Your task to perform on an android device: Open the Play Movies app and select the watchlist tab. Image 0: 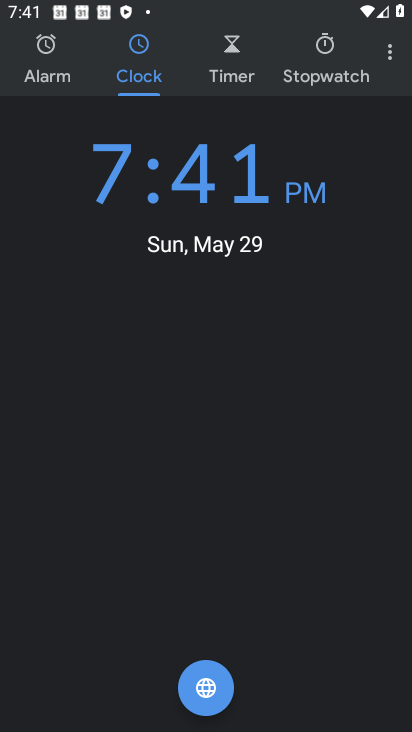
Step 0: press home button
Your task to perform on an android device: Open the Play Movies app and select the watchlist tab. Image 1: 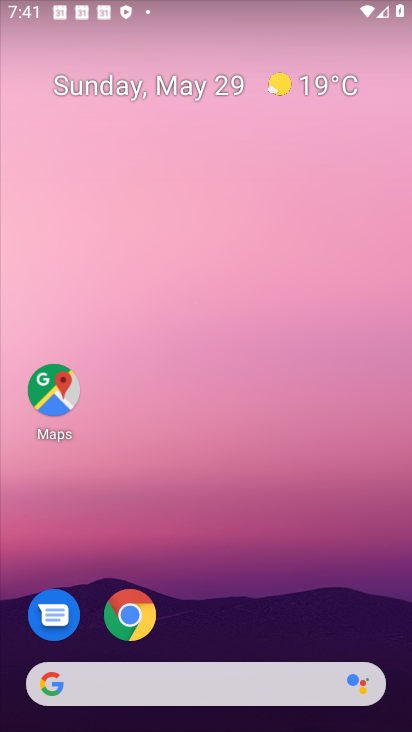
Step 1: drag from (135, 729) to (231, 56)
Your task to perform on an android device: Open the Play Movies app and select the watchlist tab. Image 2: 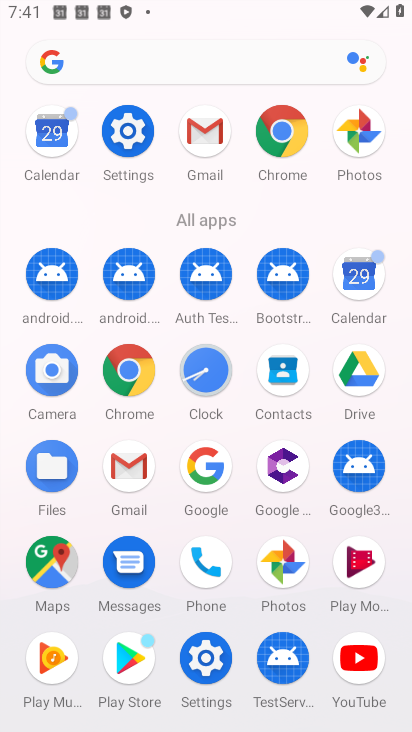
Step 2: click (356, 584)
Your task to perform on an android device: Open the Play Movies app and select the watchlist tab. Image 3: 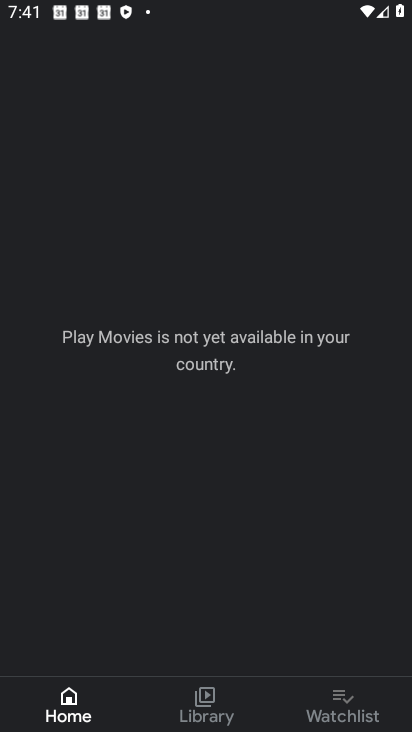
Step 3: click (329, 714)
Your task to perform on an android device: Open the Play Movies app and select the watchlist tab. Image 4: 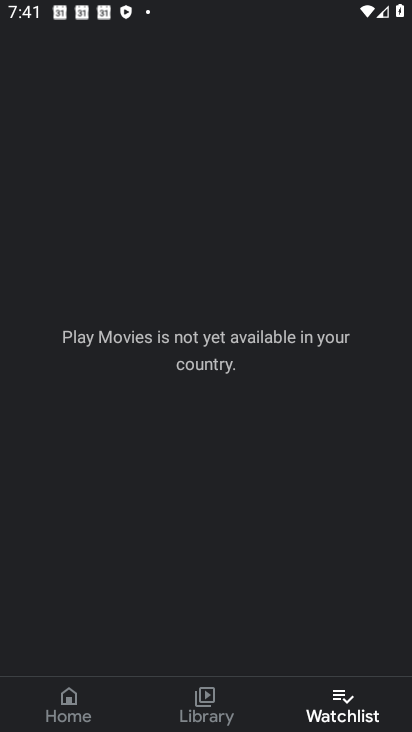
Step 4: task complete